Your task to perform on an android device: add a contact Image 0: 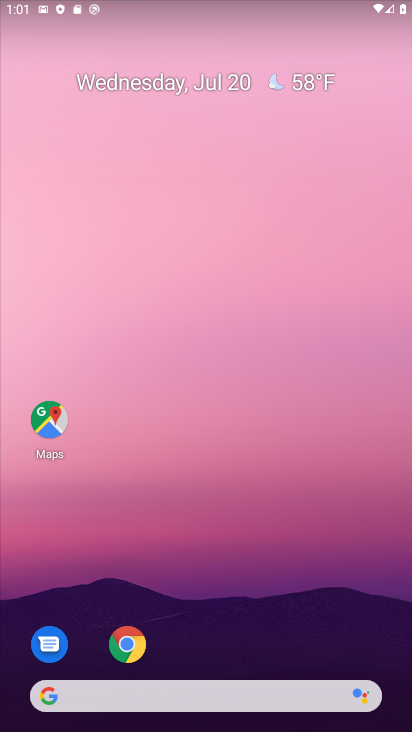
Step 0: drag from (198, 260) to (183, 158)
Your task to perform on an android device: add a contact Image 1: 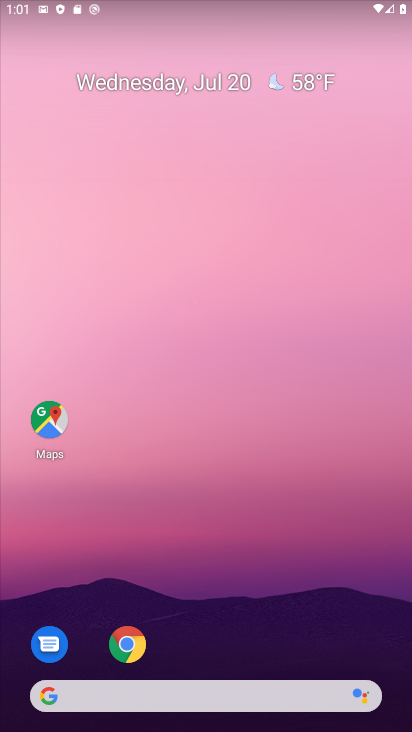
Step 1: drag from (236, 264) to (308, 18)
Your task to perform on an android device: add a contact Image 2: 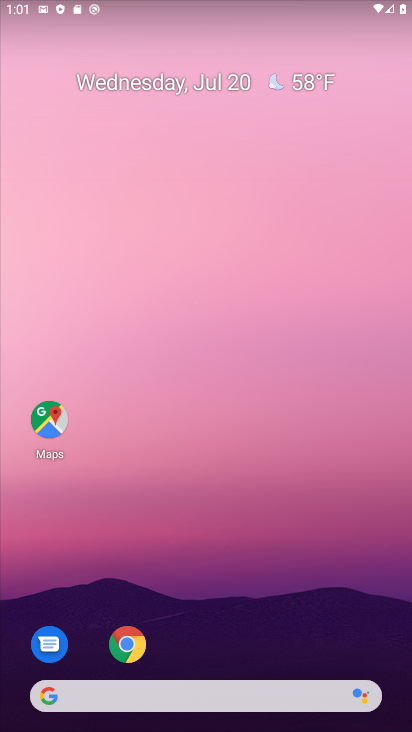
Step 2: drag from (248, 701) to (286, 48)
Your task to perform on an android device: add a contact Image 3: 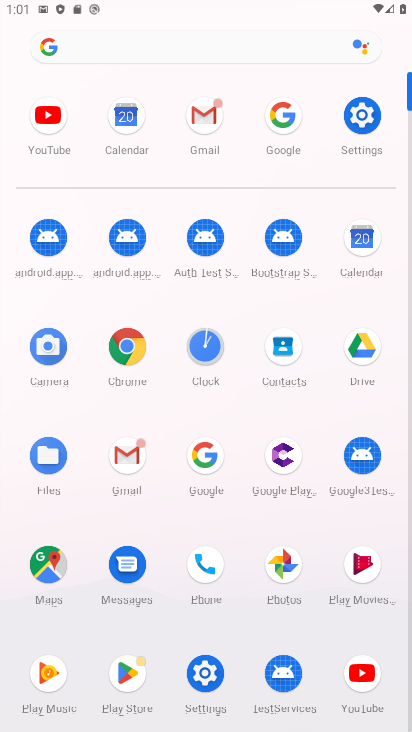
Step 3: click (282, 351)
Your task to perform on an android device: add a contact Image 4: 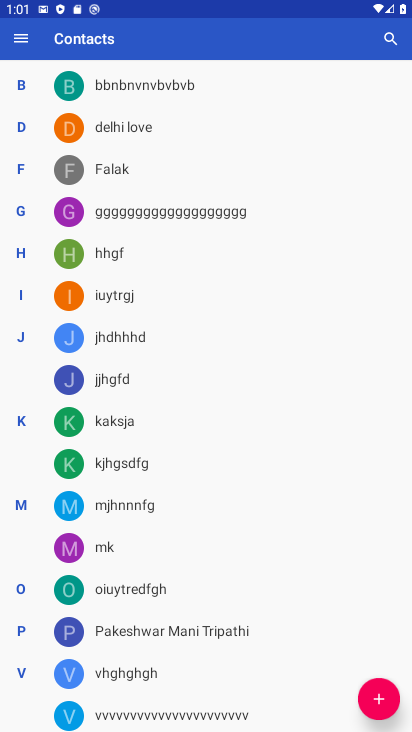
Step 4: click (376, 699)
Your task to perform on an android device: add a contact Image 5: 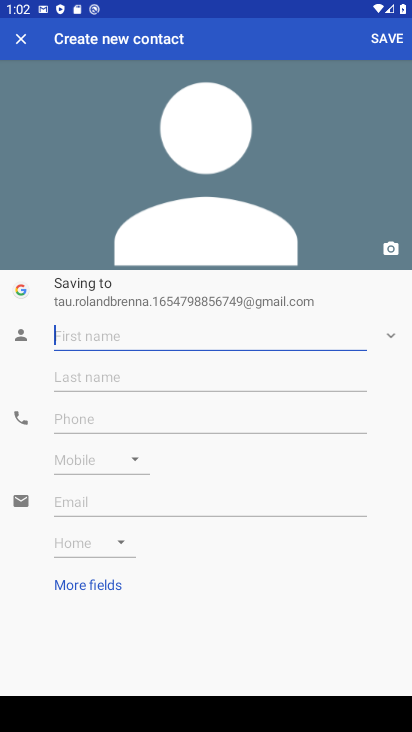
Step 5: type "nhfhj"
Your task to perform on an android device: add a contact Image 6: 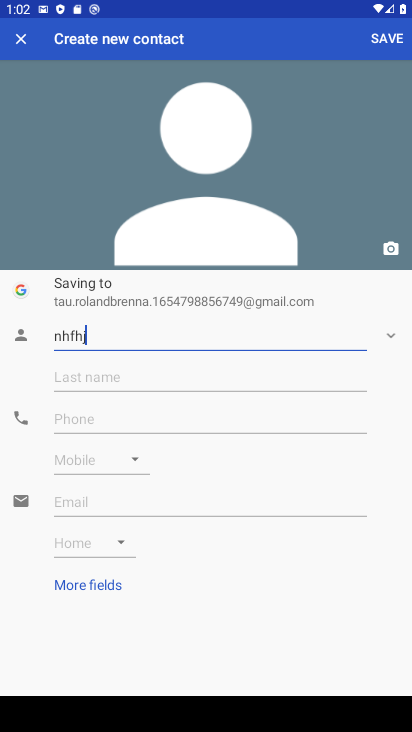
Step 6: click (155, 421)
Your task to perform on an android device: add a contact Image 7: 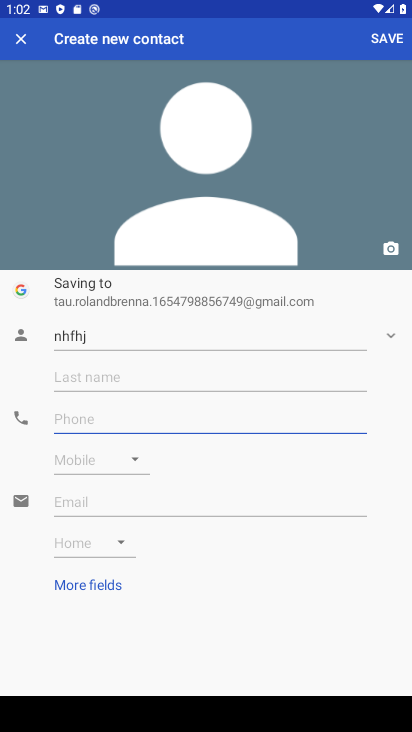
Step 7: type "8696998598"
Your task to perform on an android device: add a contact Image 8: 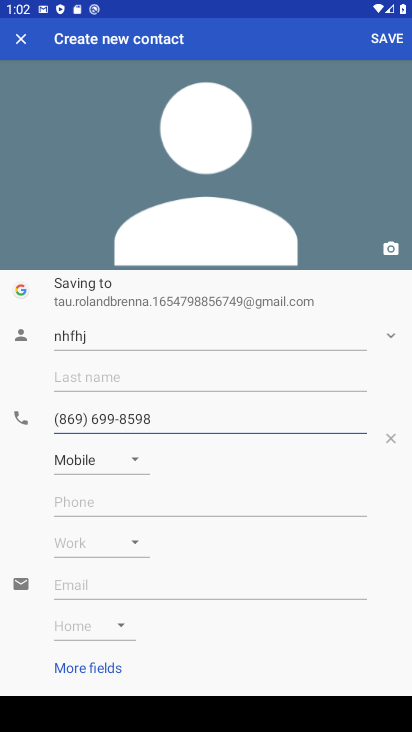
Step 8: click (381, 36)
Your task to perform on an android device: add a contact Image 9: 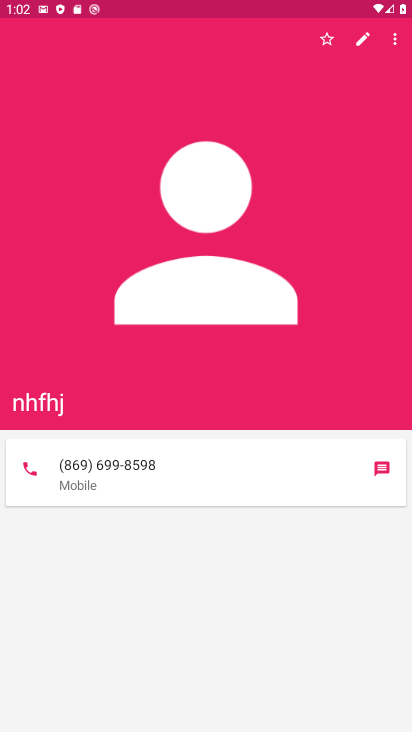
Step 9: task complete